Your task to perform on an android device: change the clock style Image 0: 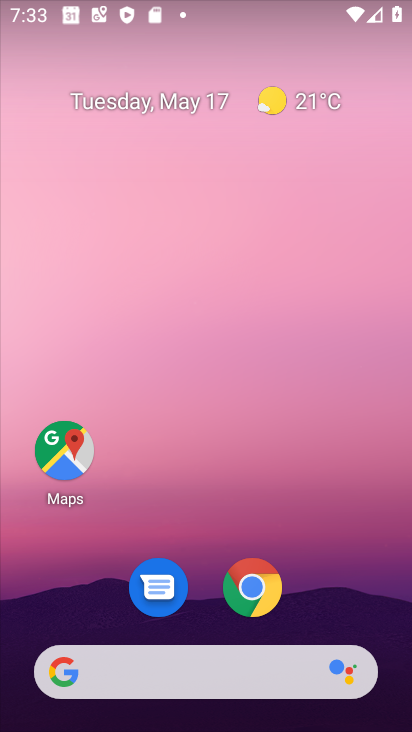
Step 0: drag from (388, 593) to (388, 216)
Your task to perform on an android device: change the clock style Image 1: 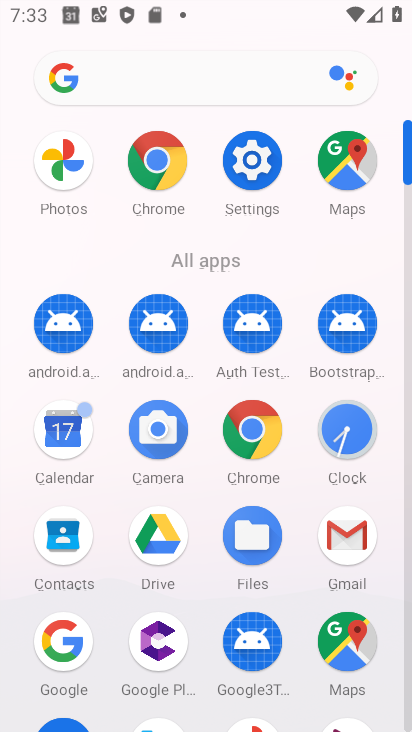
Step 1: click (368, 422)
Your task to perform on an android device: change the clock style Image 2: 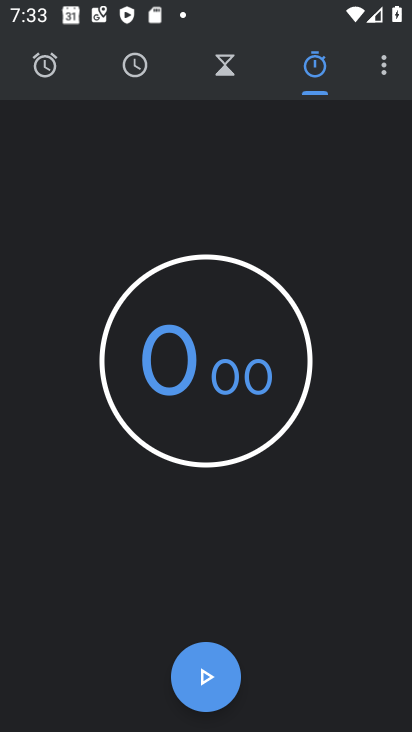
Step 2: click (381, 72)
Your task to perform on an android device: change the clock style Image 3: 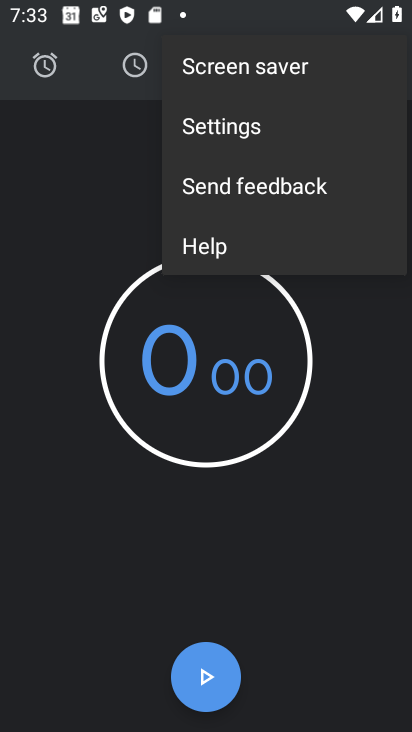
Step 3: click (281, 136)
Your task to perform on an android device: change the clock style Image 4: 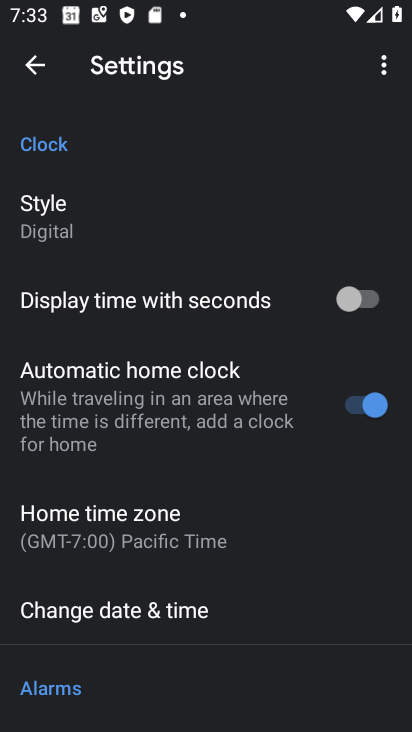
Step 4: drag from (306, 473) to (314, 395)
Your task to perform on an android device: change the clock style Image 5: 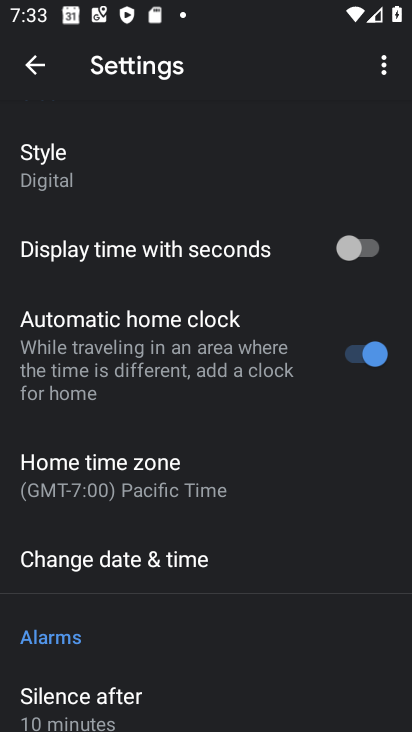
Step 5: drag from (323, 634) to (320, 450)
Your task to perform on an android device: change the clock style Image 6: 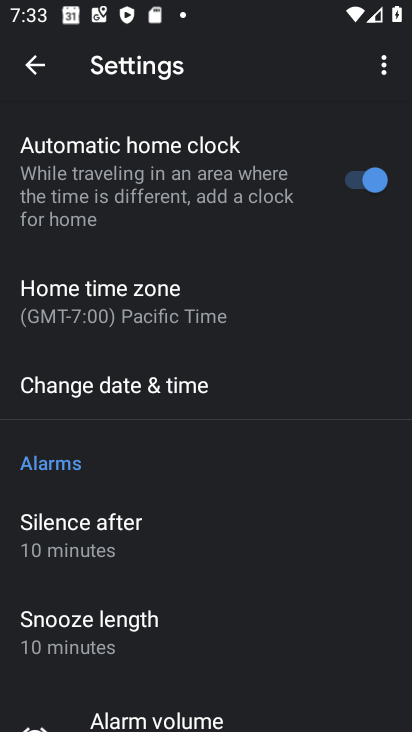
Step 6: drag from (329, 639) to (339, 444)
Your task to perform on an android device: change the clock style Image 7: 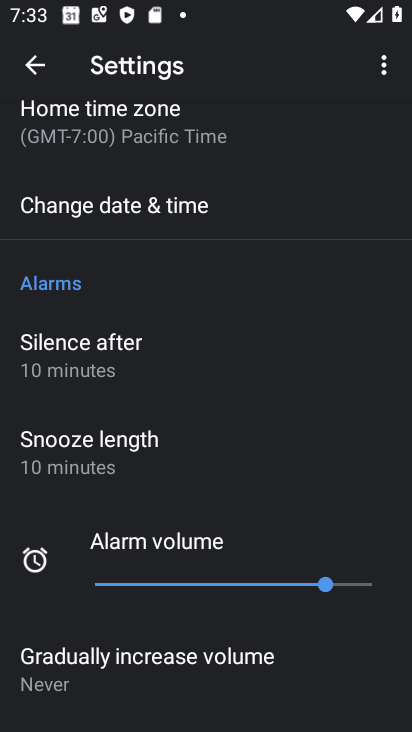
Step 7: drag from (349, 672) to (353, 457)
Your task to perform on an android device: change the clock style Image 8: 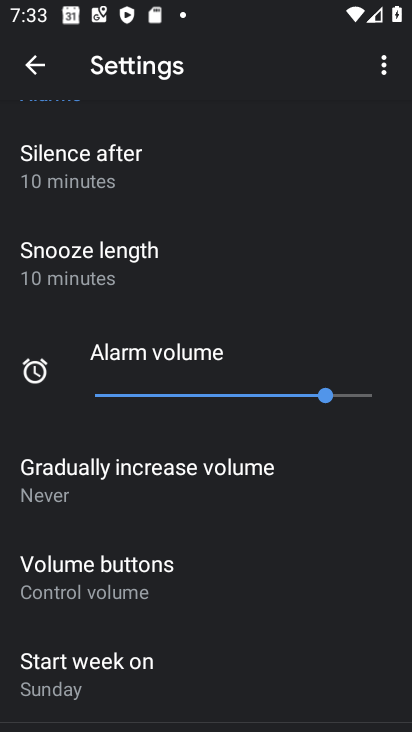
Step 8: drag from (371, 636) to (373, 453)
Your task to perform on an android device: change the clock style Image 9: 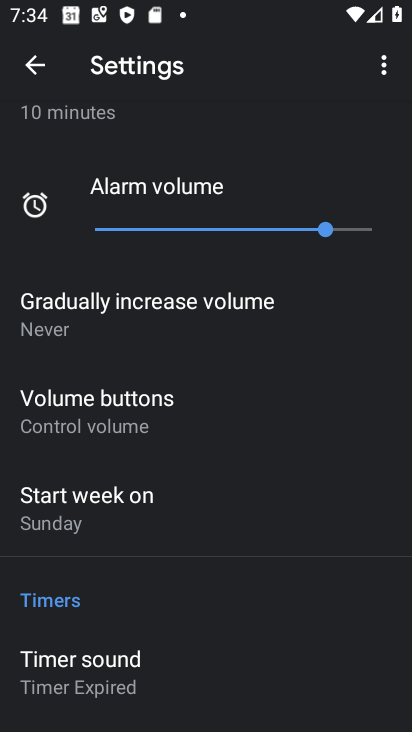
Step 9: drag from (344, 646) to (342, 462)
Your task to perform on an android device: change the clock style Image 10: 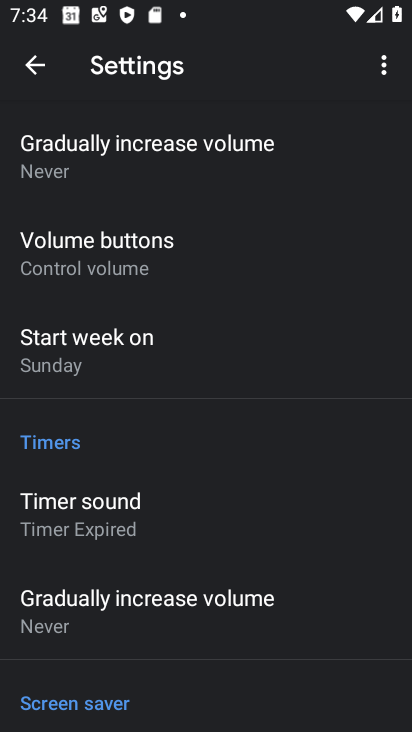
Step 10: drag from (333, 642) to (342, 462)
Your task to perform on an android device: change the clock style Image 11: 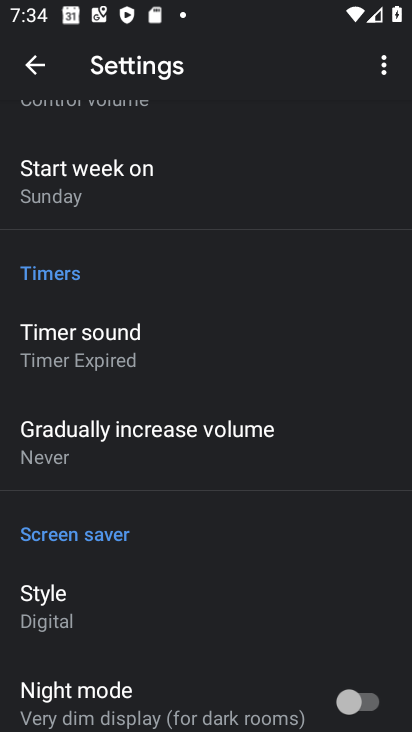
Step 11: drag from (350, 313) to (352, 475)
Your task to perform on an android device: change the clock style Image 12: 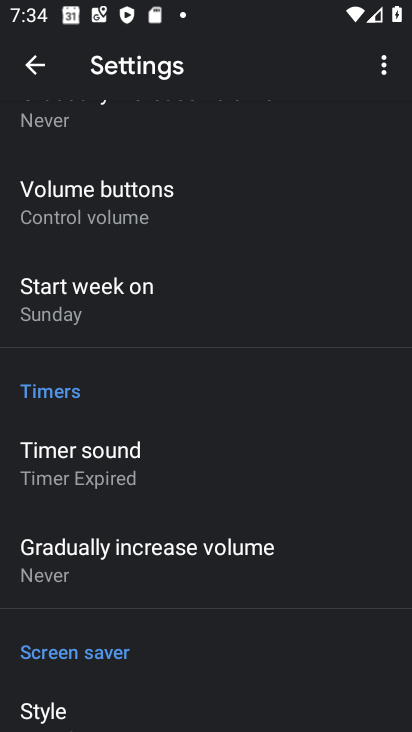
Step 12: drag from (349, 333) to (349, 474)
Your task to perform on an android device: change the clock style Image 13: 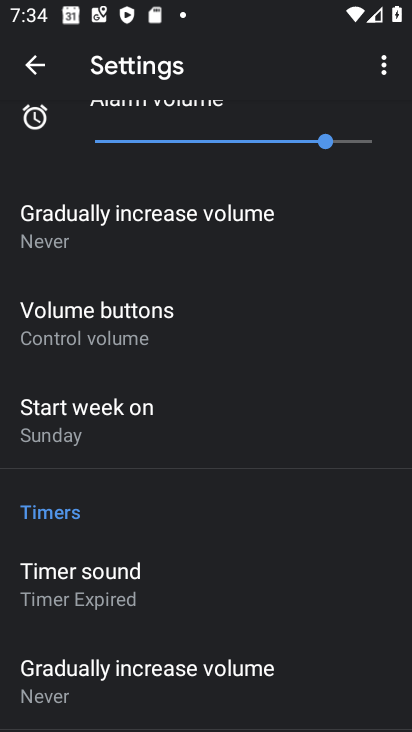
Step 13: drag from (344, 326) to (343, 432)
Your task to perform on an android device: change the clock style Image 14: 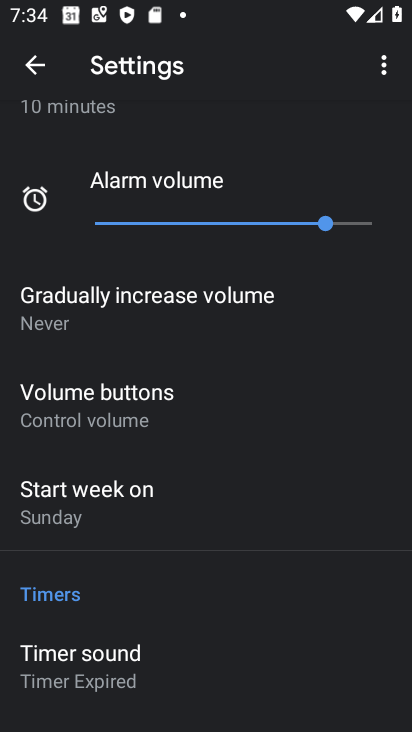
Step 14: drag from (348, 317) to (340, 444)
Your task to perform on an android device: change the clock style Image 15: 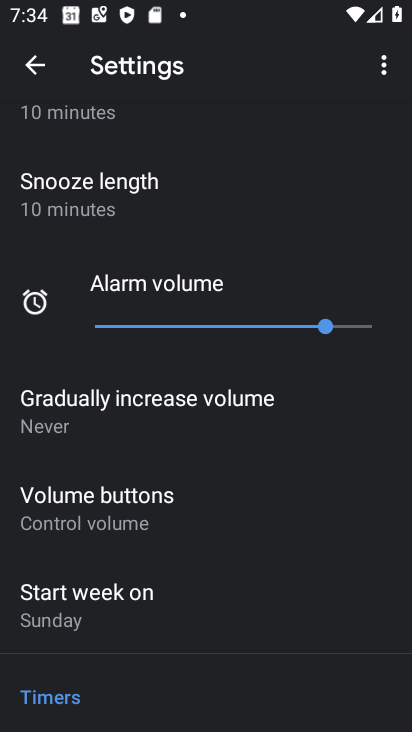
Step 15: drag from (357, 267) to (351, 408)
Your task to perform on an android device: change the clock style Image 16: 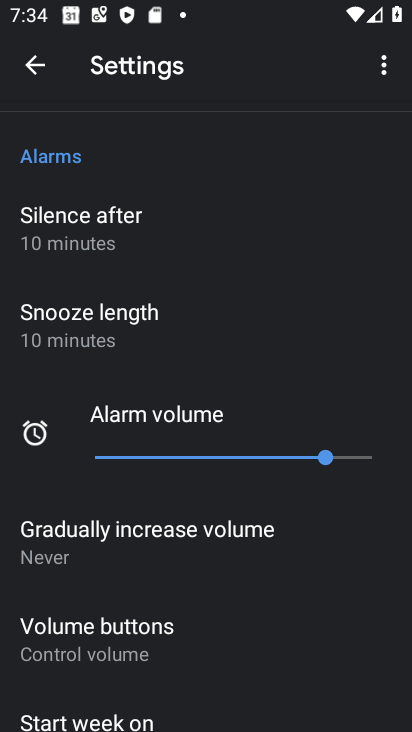
Step 16: drag from (366, 234) to (346, 384)
Your task to perform on an android device: change the clock style Image 17: 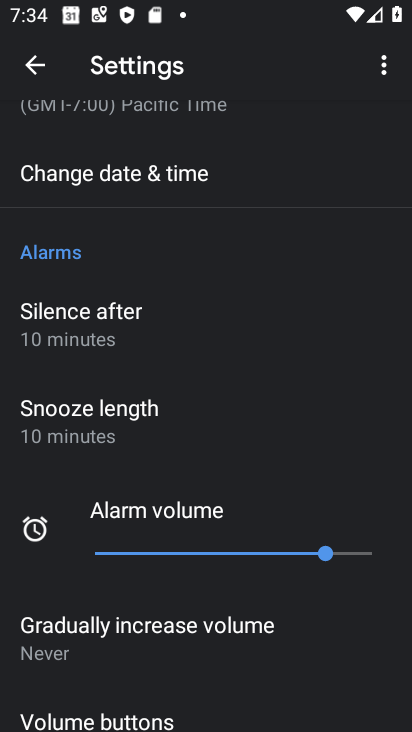
Step 17: drag from (328, 265) to (325, 306)
Your task to perform on an android device: change the clock style Image 18: 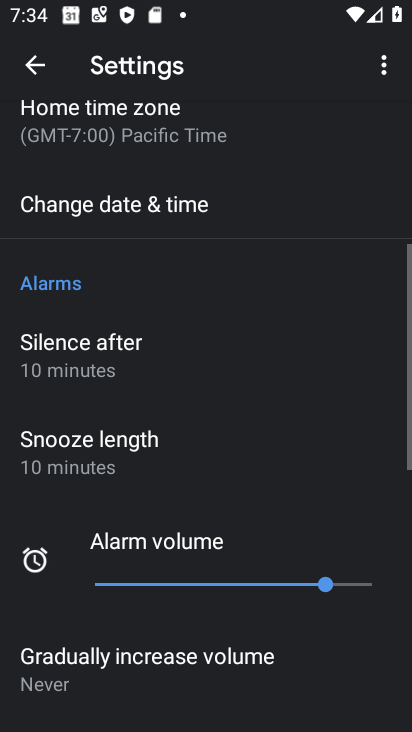
Step 18: drag from (345, 168) to (348, 323)
Your task to perform on an android device: change the clock style Image 19: 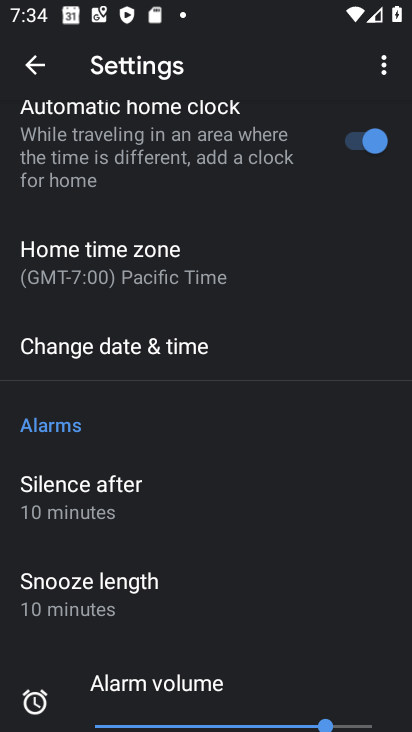
Step 19: drag from (342, 184) to (326, 321)
Your task to perform on an android device: change the clock style Image 20: 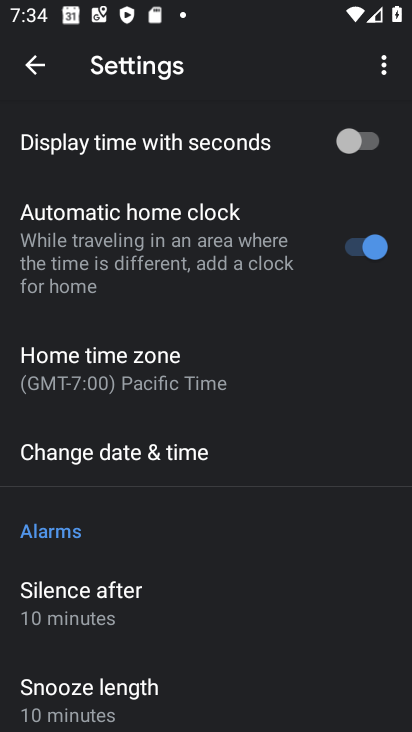
Step 20: drag from (297, 127) to (303, 314)
Your task to perform on an android device: change the clock style Image 21: 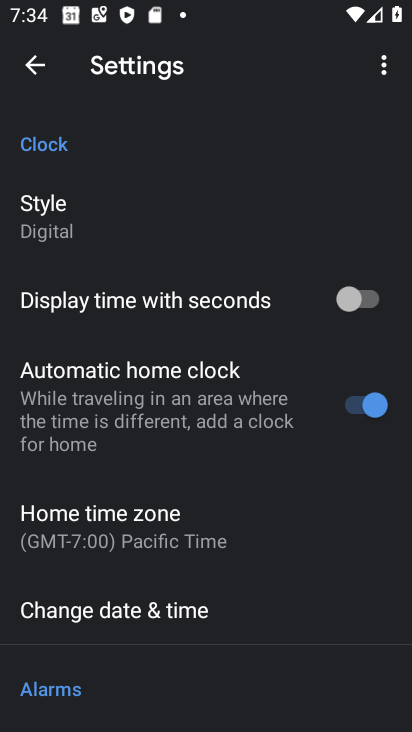
Step 21: click (59, 240)
Your task to perform on an android device: change the clock style Image 22: 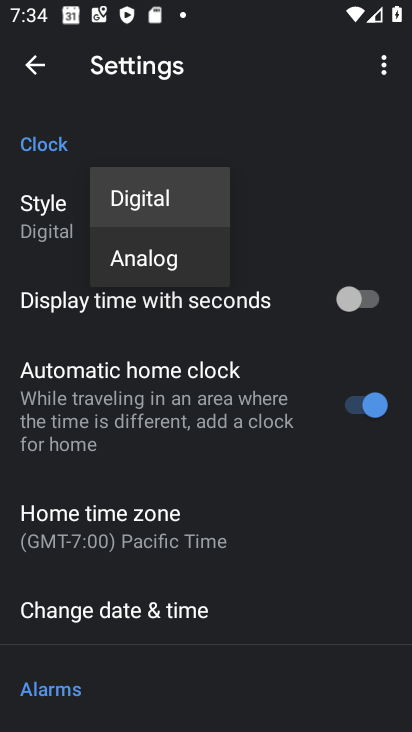
Step 22: click (182, 267)
Your task to perform on an android device: change the clock style Image 23: 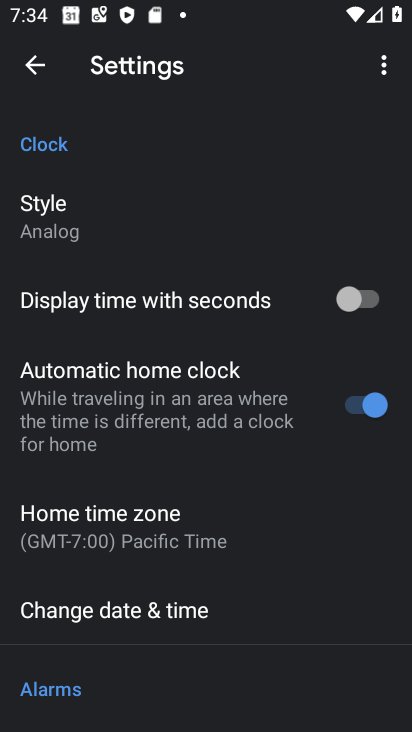
Step 23: task complete